Your task to perform on an android device: clear history in the chrome app Image 0: 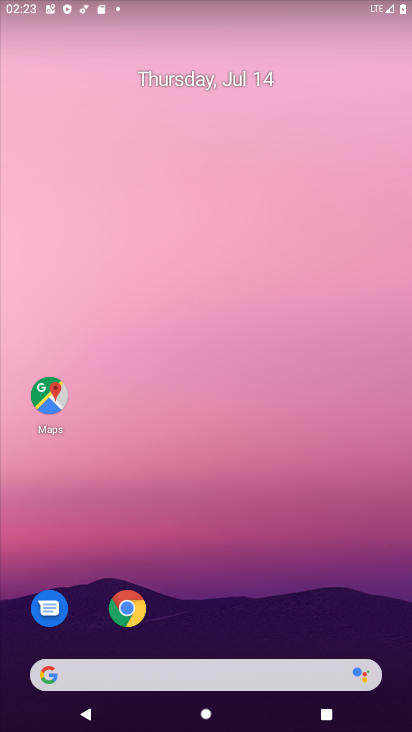
Step 0: click (128, 609)
Your task to perform on an android device: clear history in the chrome app Image 1: 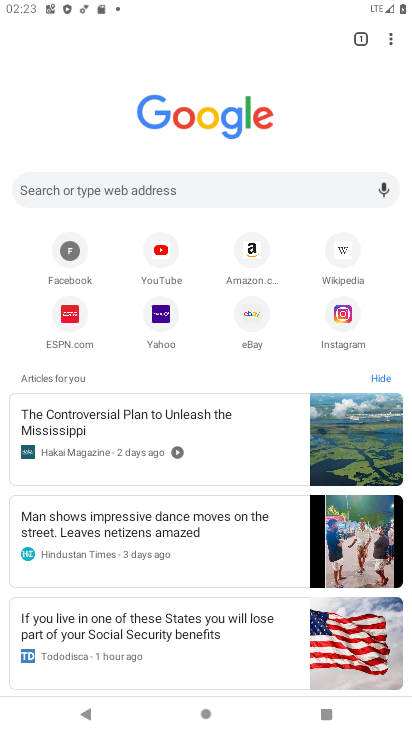
Step 1: click (389, 33)
Your task to perform on an android device: clear history in the chrome app Image 2: 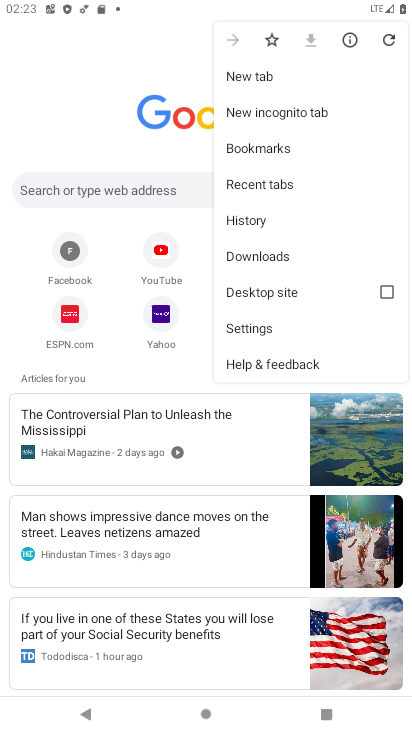
Step 2: click (232, 216)
Your task to perform on an android device: clear history in the chrome app Image 3: 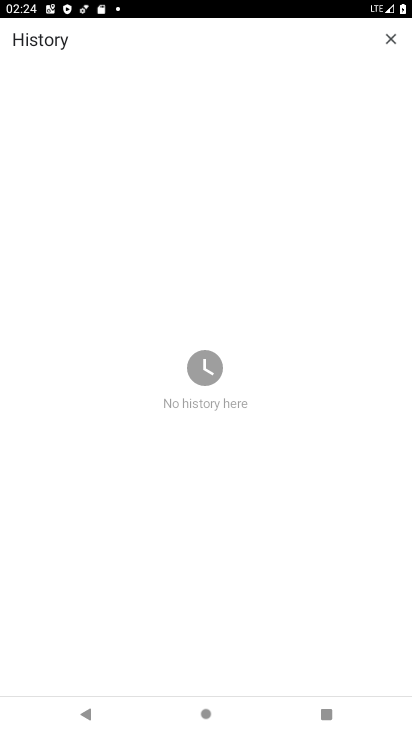
Step 3: task complete